Your task to perform on an android device: Add bose soundlink mini to the cart on target.com Image 0: 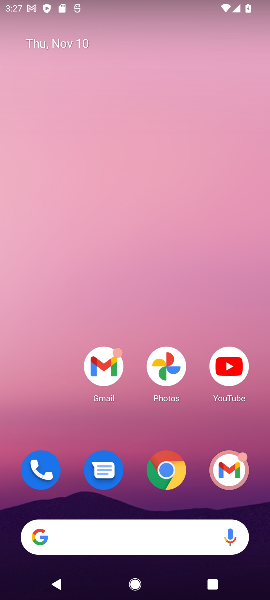
Step 0: click (163, 459)
Your task to perform on an android device: Add bose soundlink mini to the cart on target.com Image 1: 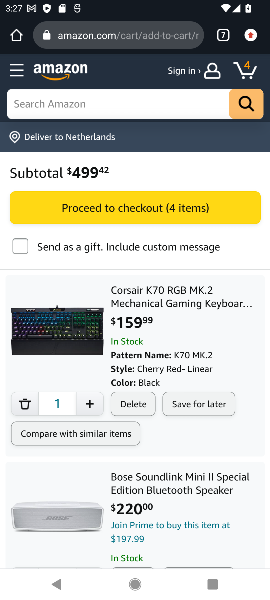
Step 1: click (223, 35)
Your task to perform on an android device: Add bose soundlink mini to the cart on target.com Image 2: 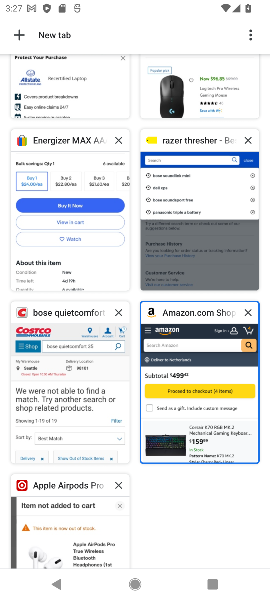
Step 2: click (62, 490)
Your task to perform on an android device: Add bose soundlink mini to the cart on target.com Image 3: 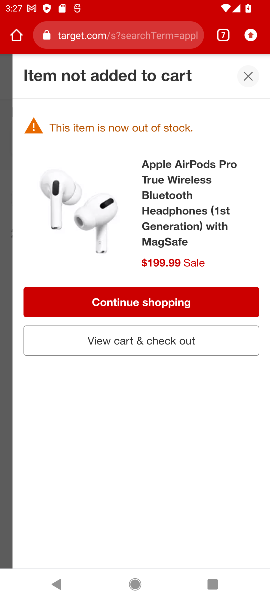
Step 3: click (248, 74)
Your task to perform on an android device: Add bose soundlink mini to the cart on target.com Image 4: 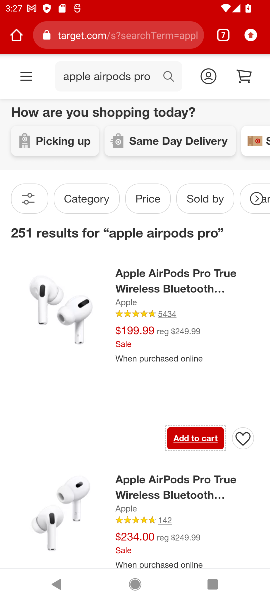
Step 4: click (148, 74)
Your task to perform on an android device: Add bose soundlink mini to the cart on target.com Image 5: 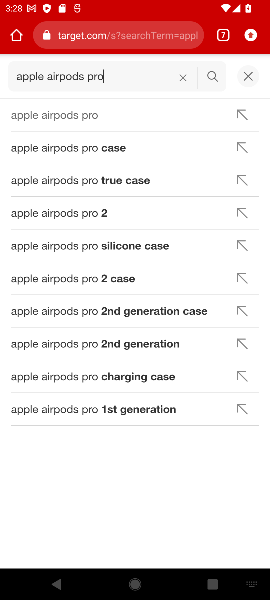
Step 5: click (182, 79)
Your task to perform on an android device: Add bose soundlink mini to the cart on target.com Image 6: 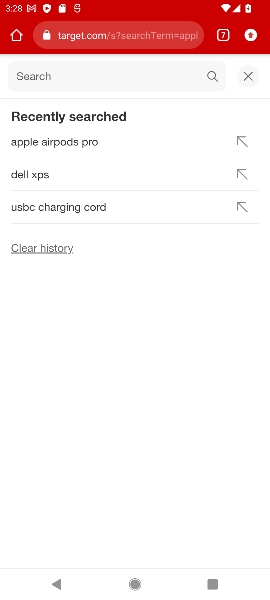
Step 6: type "bose soundlink mini"
Your task to perform on an android device: Add bose soundlink mini to the cart on target.com Image 7: 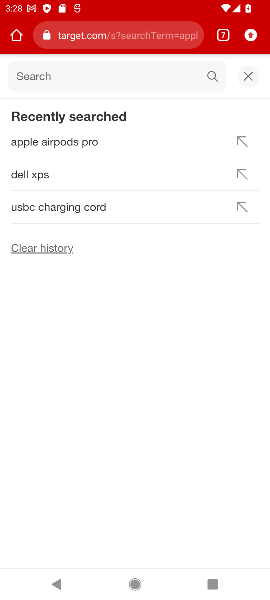
Step 7: click (55, 78)
Your task to perform on an android device: Add bose soundlink mini to the cart on target.com Image 8: 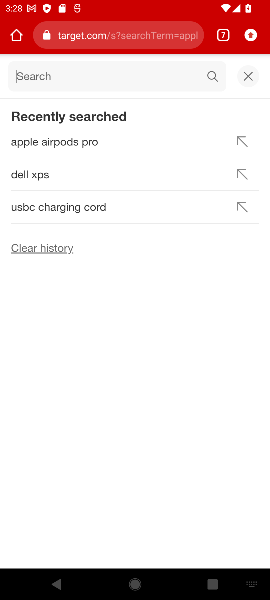
Step 8: type "bose soundlink mini"
Your task to perform on an android device: Add bose soundlink mini to the cart on target.com Image 9: 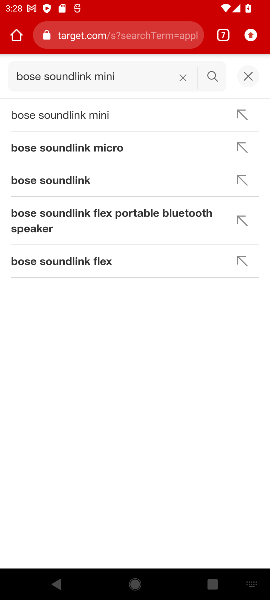
Step 9: click (61, 115)
Your task to perform on an android device: Add bose soundlink mini to the cart on target.com Image 10: 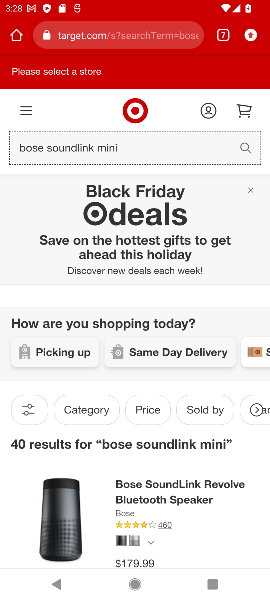
Step 10: drag from (201, 524) to (245, 255)
Your task to perform on an android device: Add bose soundlink mini to the cart on target.com Image 11: 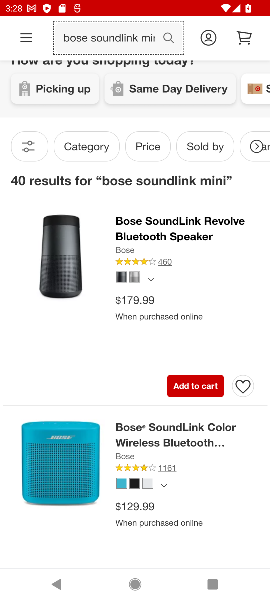
Step 11: drag from (217, 451) to (237, 133)
Your task to perform on an android device: Add bose soundlink mini to the cart on target.com Image 12: 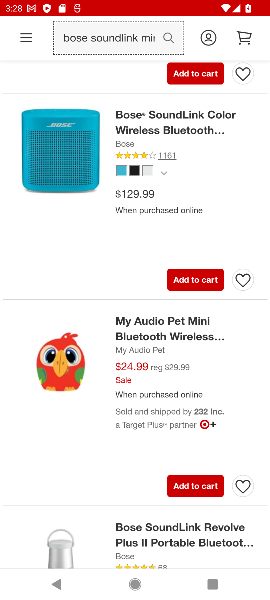
Step 12: click (203, 277)
Your task to perform on an android device: Add bose soundlink mini to the cart on target.com Image 13: 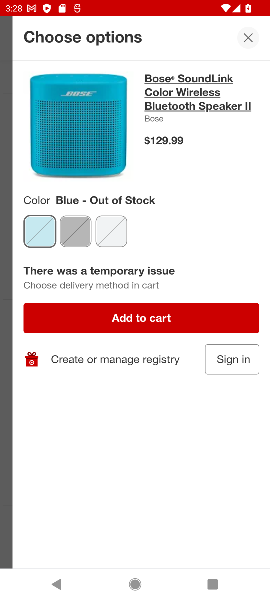
Step 13: click (163, 311)
Your task to perform on an android device: Add bose soundlink mini to the cart on target.com Image 14: 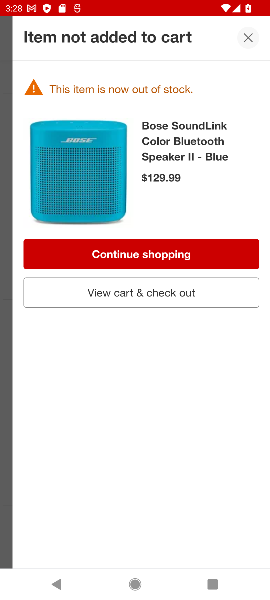
Step 14: task complete